Your task to perform on an android device: install app "Google Find My Device" Image 0: 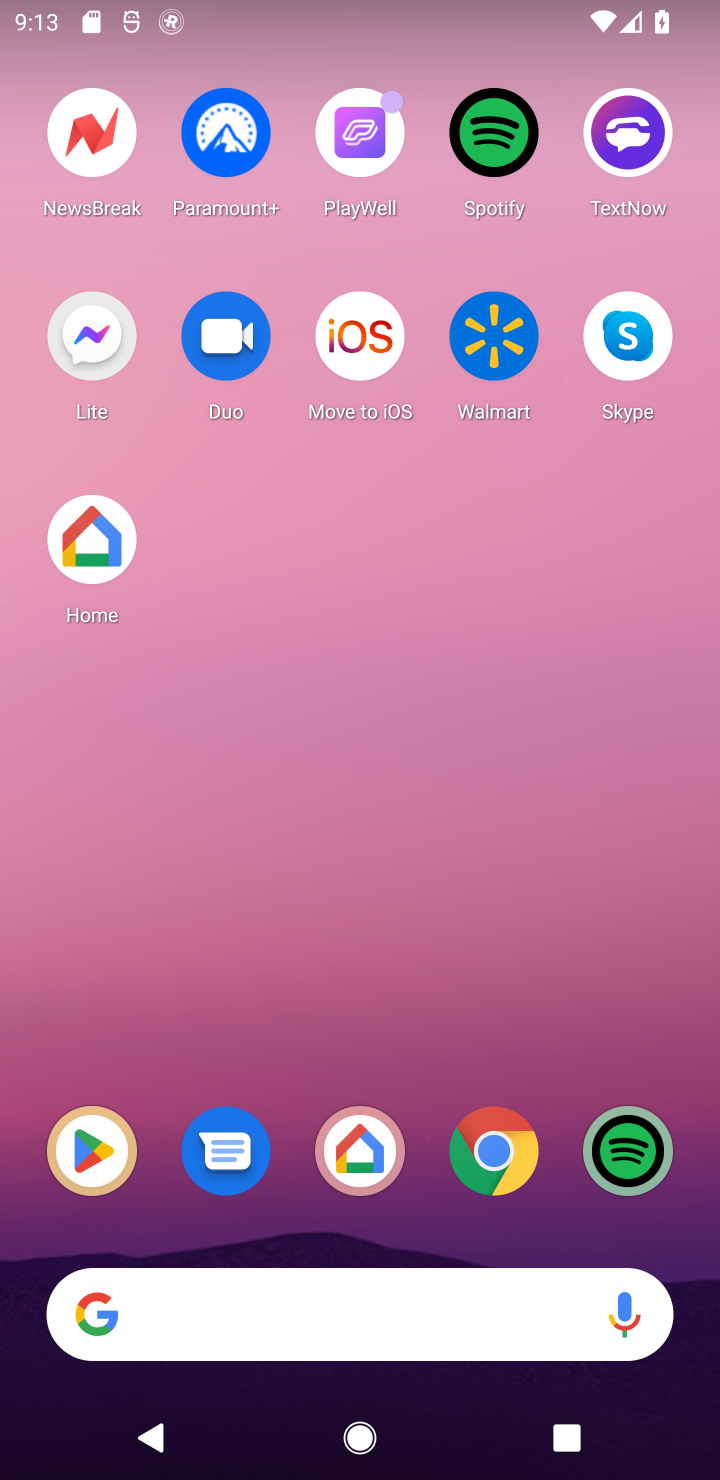
Step 0: click (78, 1148)
Your task to perform on an android device: install app "Google Find My Device" Image 1: 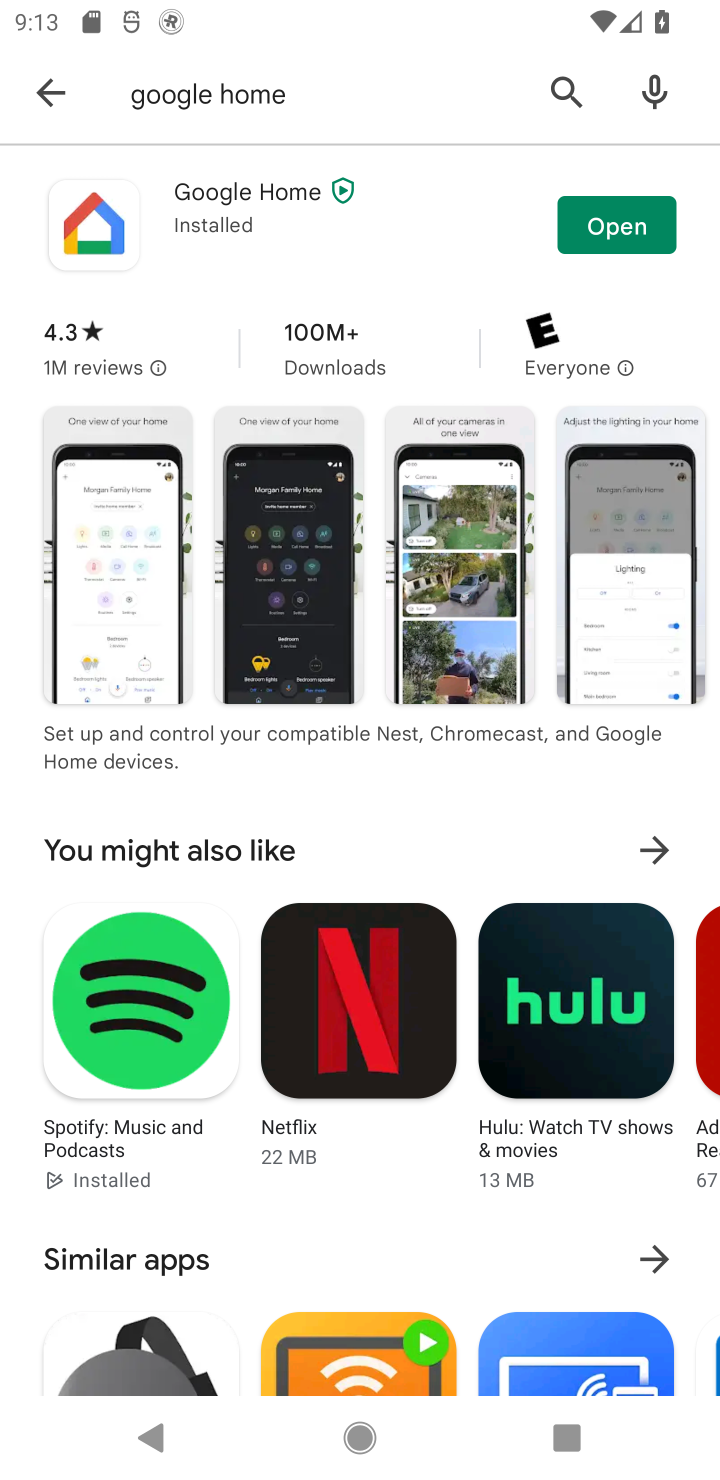
Step 1: click (549, 82)
Your task to perform on an android device: install app "Google Find My Device" Image 2: 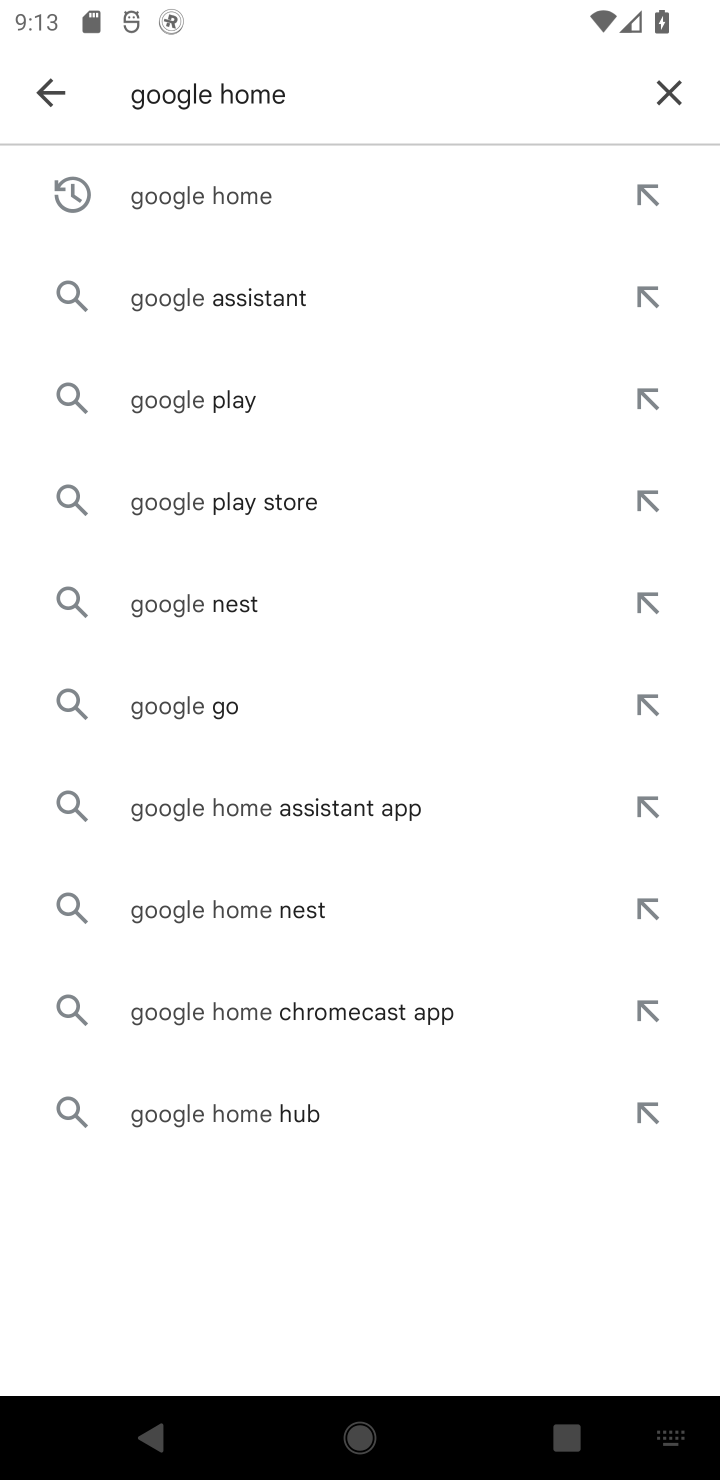
Step 2: click (672, 90)
Your task to perform on an android device: install app "Google Find My Device" Image 3: 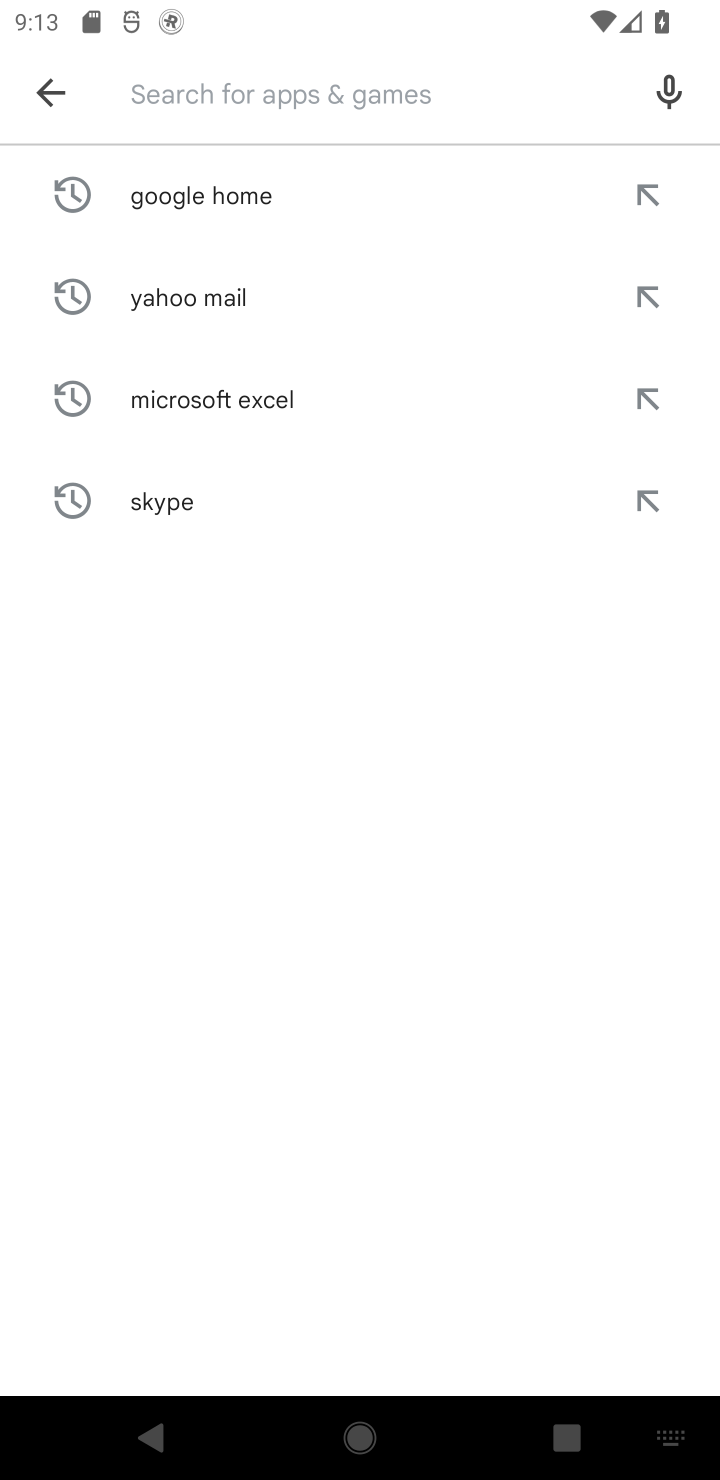
Step 3: type "Google Find My Device"
Your task to perform on an android device: install app "Google Find My Device" Image 4: 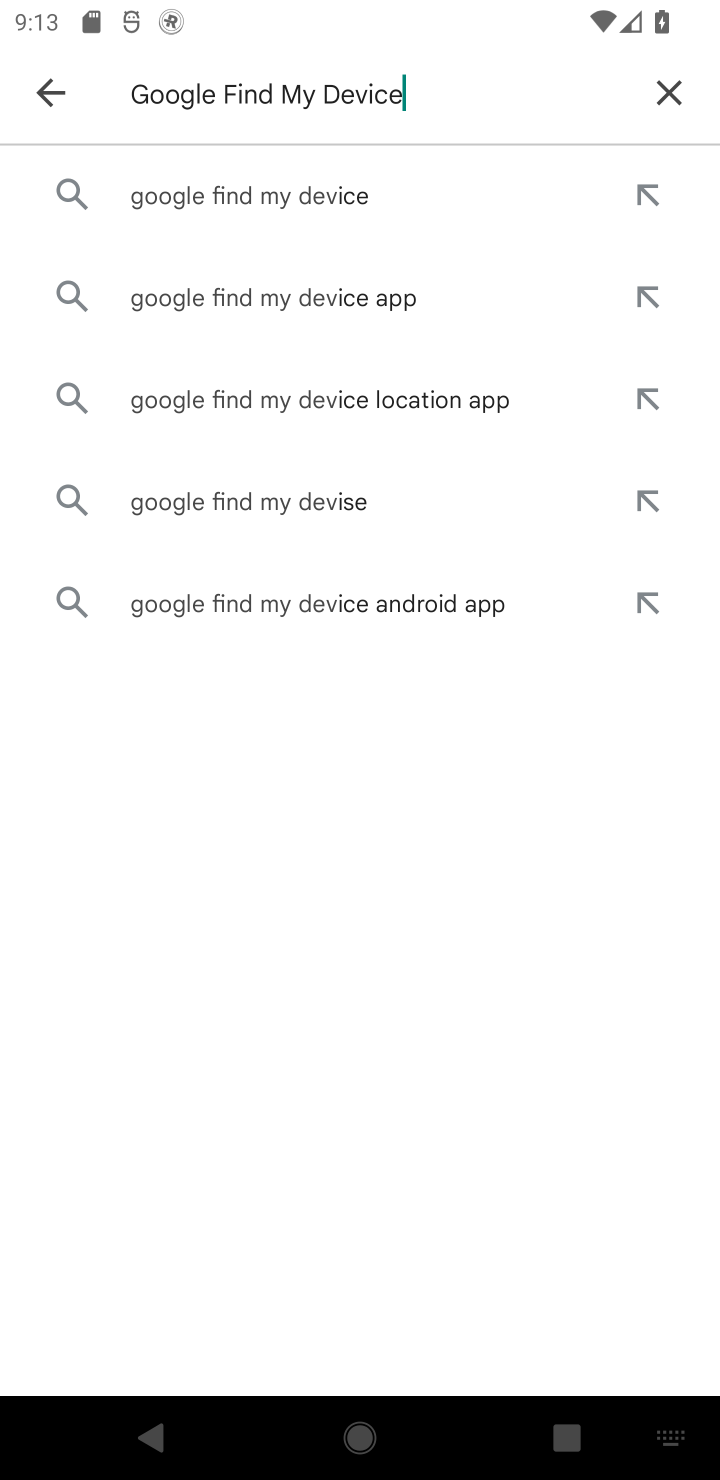
Step 4: type ""
Your task to perform on an android device: install app "Google Find My Device" Image 5: 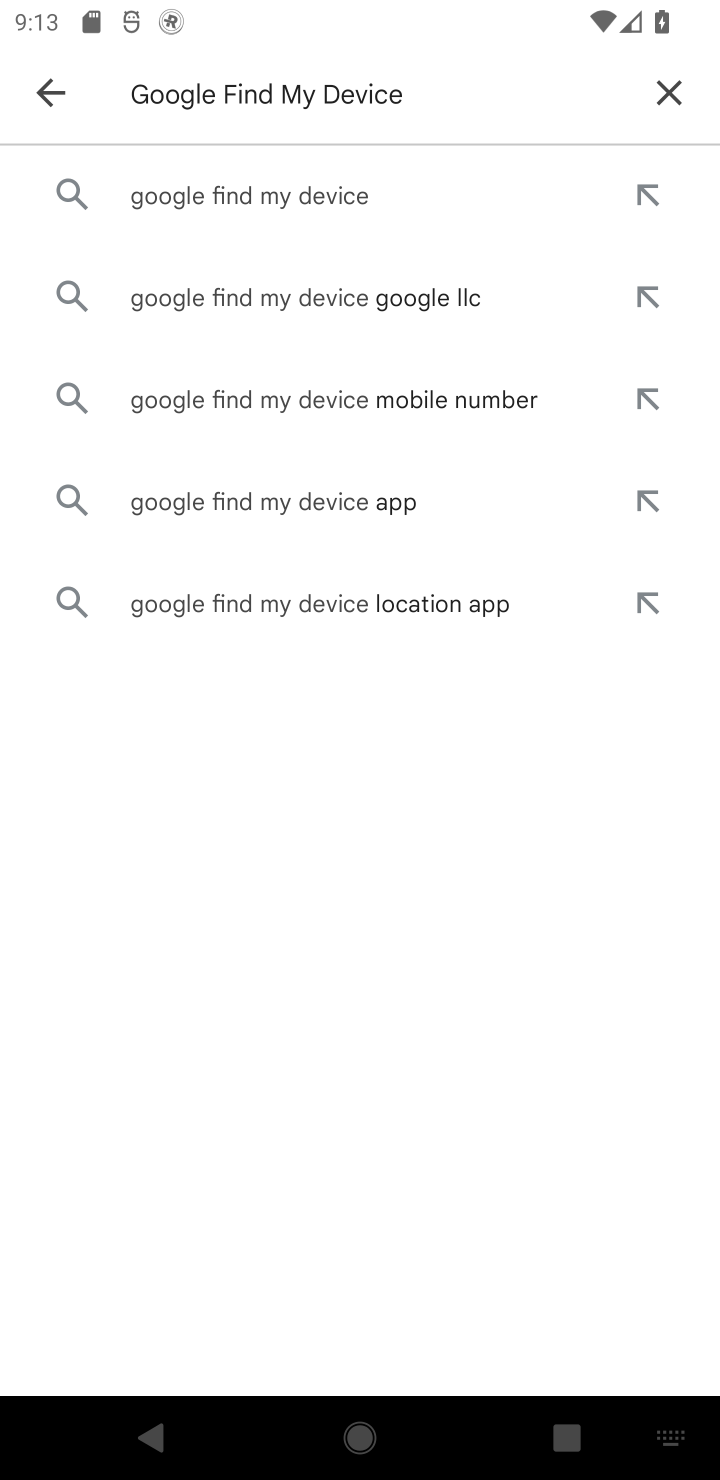
Step 5: click (397, 212)
Your task to perform on an android device: install app "Google Find My Device" Image 6: 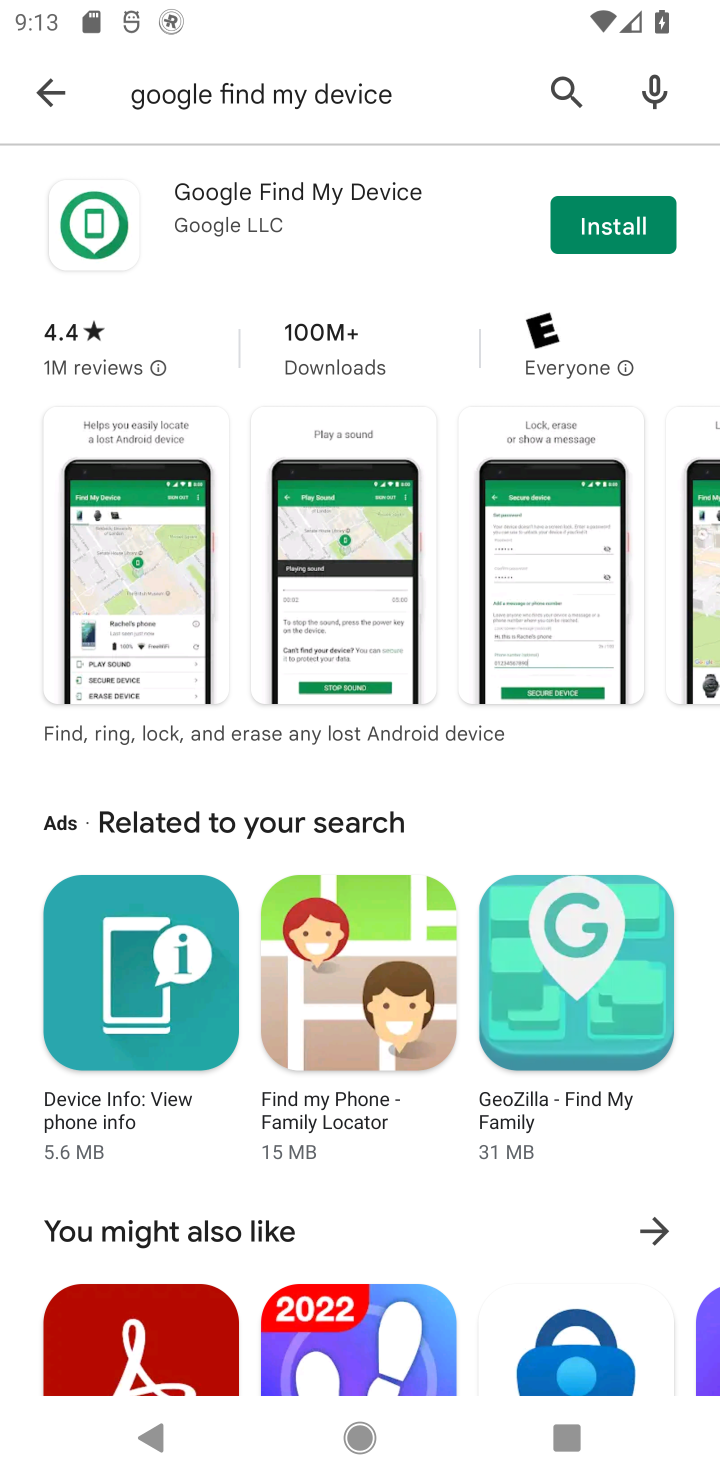
Step 6: click (605, 200)
Your task to perform on an android device: install app "Google Find My Device" Image 7: 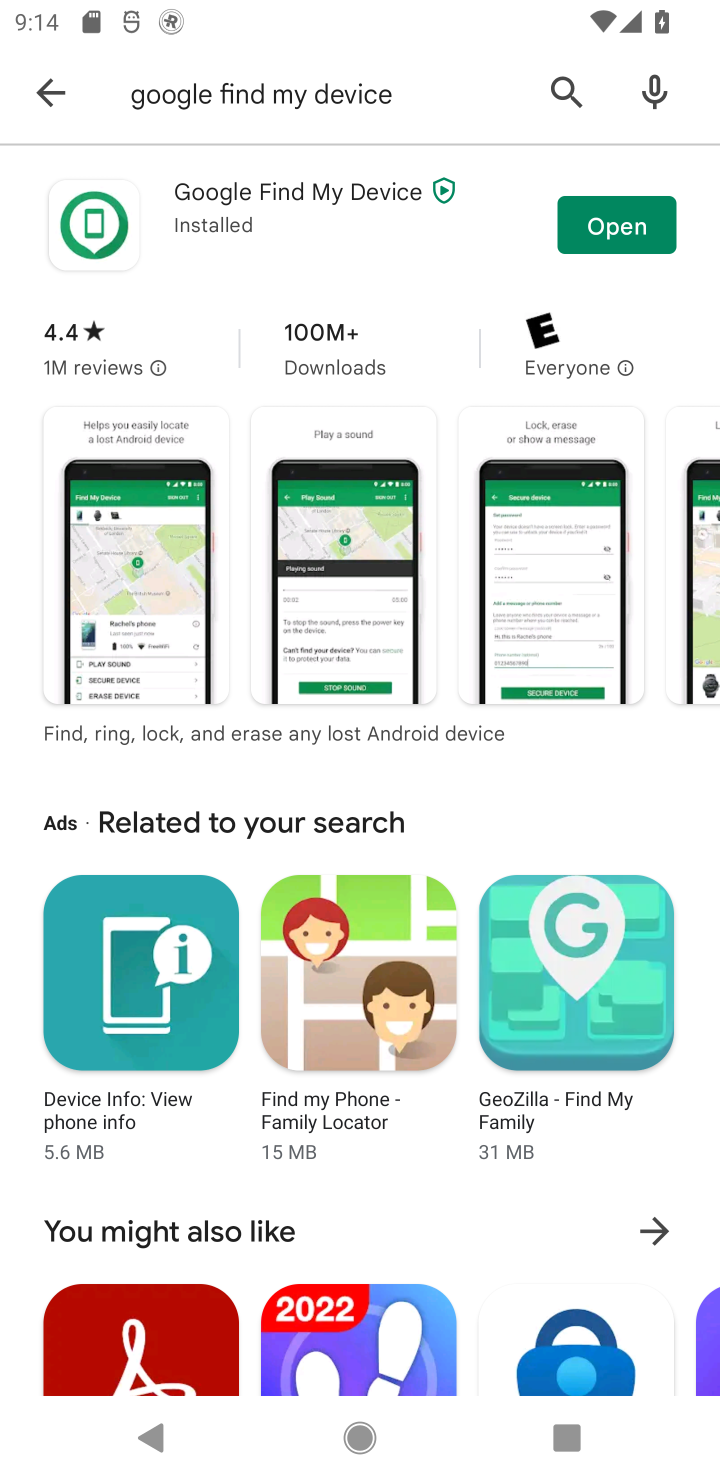
Step 7: task complete